Your task to perform on an android device: allow notifications from all sites in the chrome app Image 0: 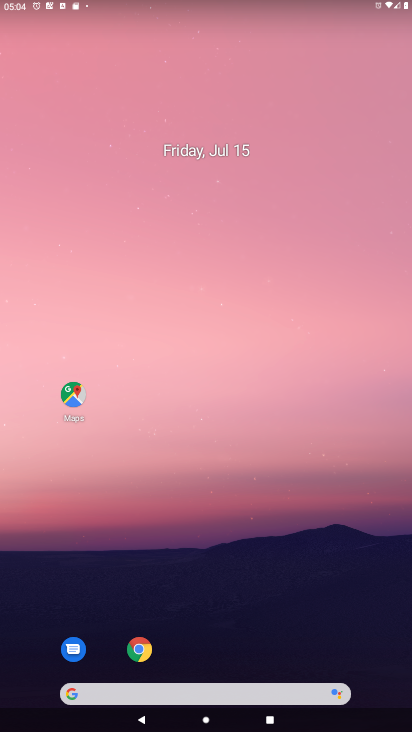
Step 0: click (390, 663)
Your task to perform on an android device: allow notifications from all sites in the chrome app Image 1: 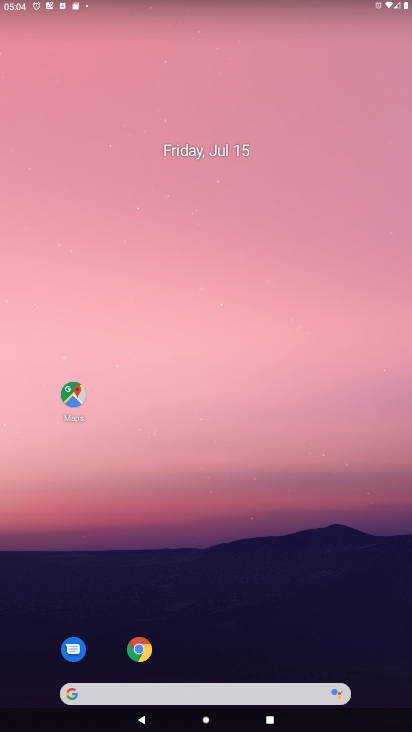
Step 1: click (139, 649)
Your task to perform on an android device: allow notifications from all sites in the chrome app Image 2: 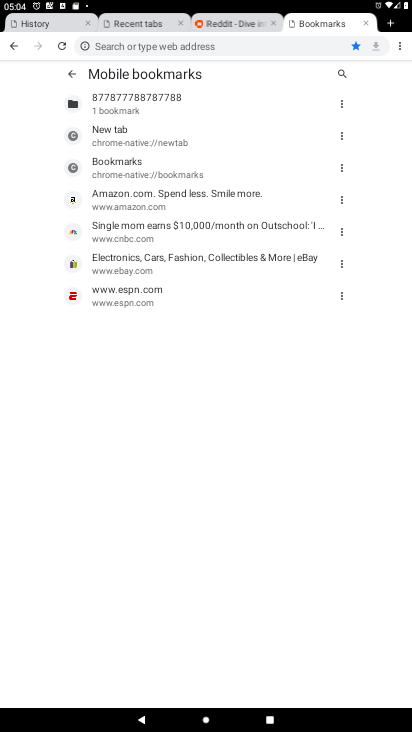
Step 2: click (400, 48)
Your task to perform on an android device: allow notifications from all sites in the chrome app Image 3: 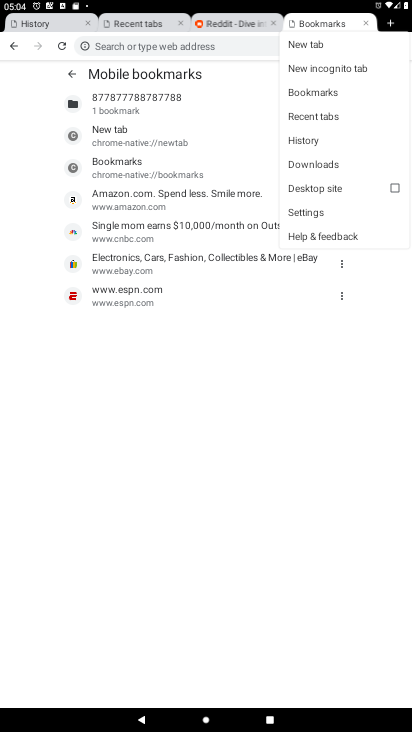
Step 3: click (302, 210)
Your task to perform on an android device: allow notifications from all sites in the chrome app Image 4: 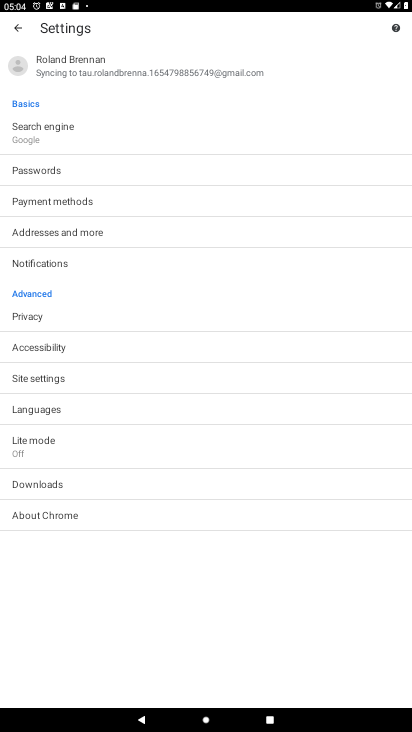
Step 4: click (39, 371)
Your task to perform on an android device: allow notifications from all sites in the chrome app Image 5: 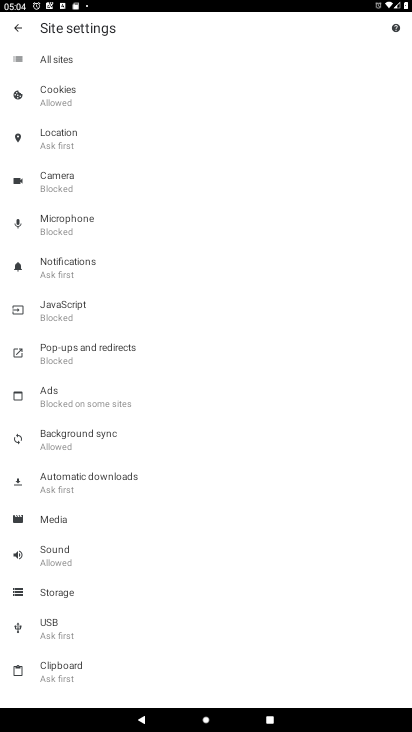
Step 5: click (62, 260)
Your task to perform on an android device: allow notifications from all sites in the chrome app Image 6: 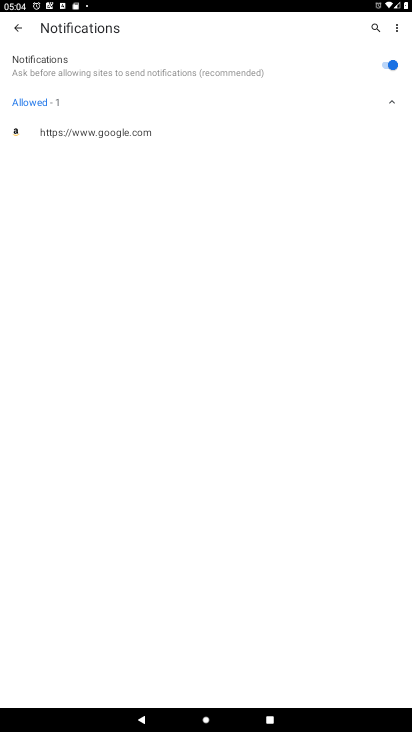
Step 6: task complete